Your task to perform on an android device: Go to Yahoo.com Image 0: 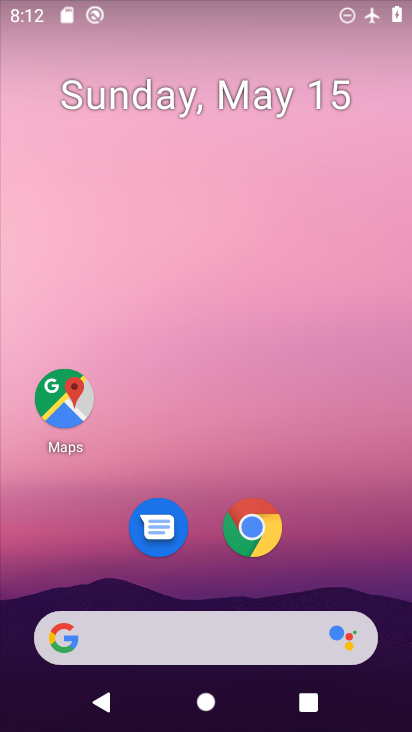
Step 0: click (257, 518)
Your task to perform on an android device: Go to Yahoo.com Image 1: 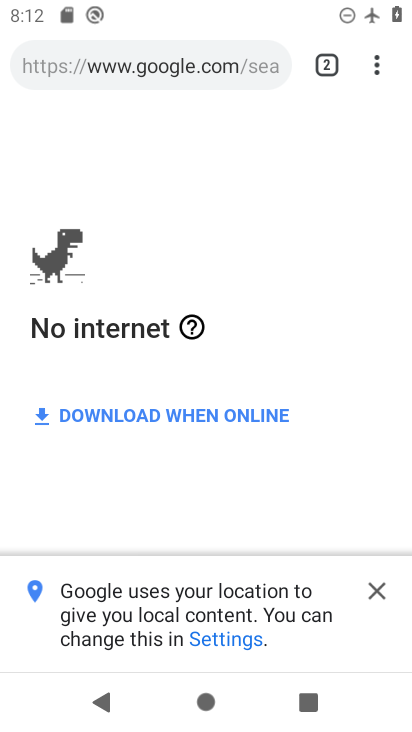
Step 1: click (319, 70)
Your task to perform on an android device: Go to Yahoo.com Image 2: 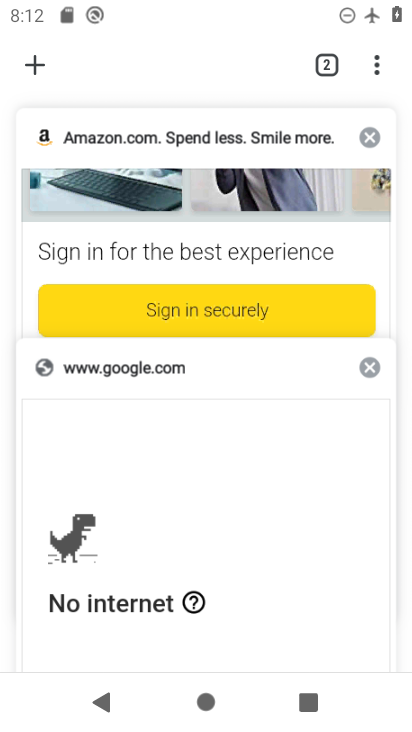
Step 2: click (37, 60)
Your task to perform on an android device: Go to Yahoo.com Image 3: 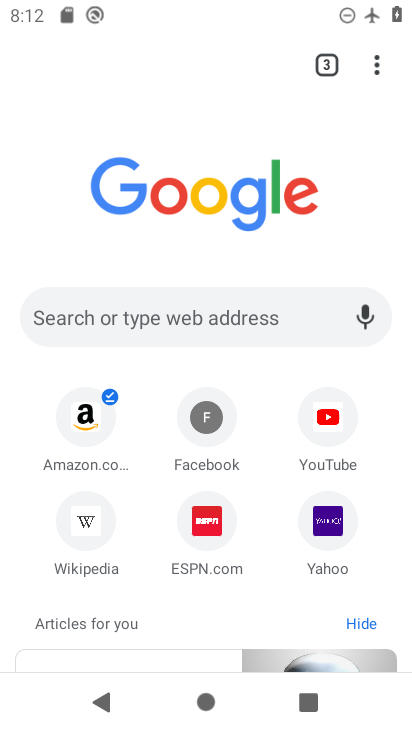
Step 3: click (325, 518)
Your task to perform on an android device: Go to Yahoo.com Image 4: 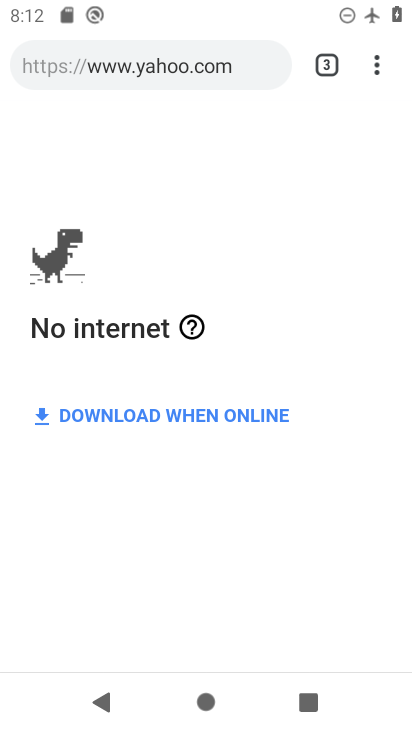
Step 4: task complete